Your task to perform on an android device: What is the news today? Image 0: 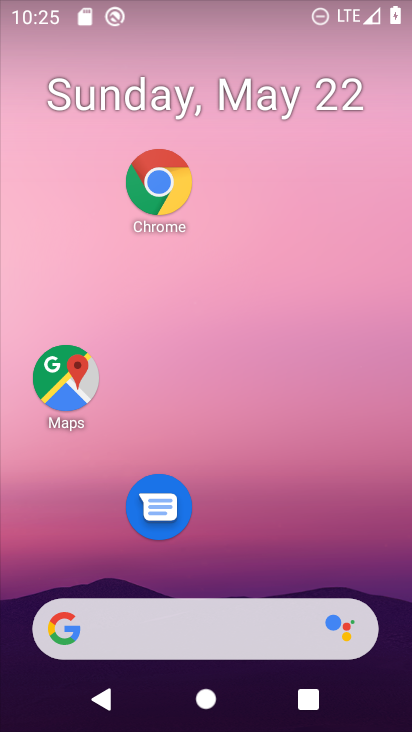
Step 0: click (214, 612)
Your task to perform on an android device: What is the news today? Image 1: 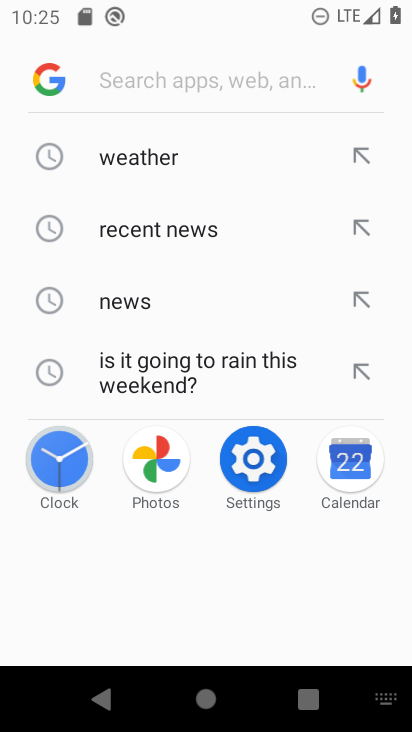
Step 1: type "What is the news today?"
Your task to perform on an android device: What is the news today? Image 2: 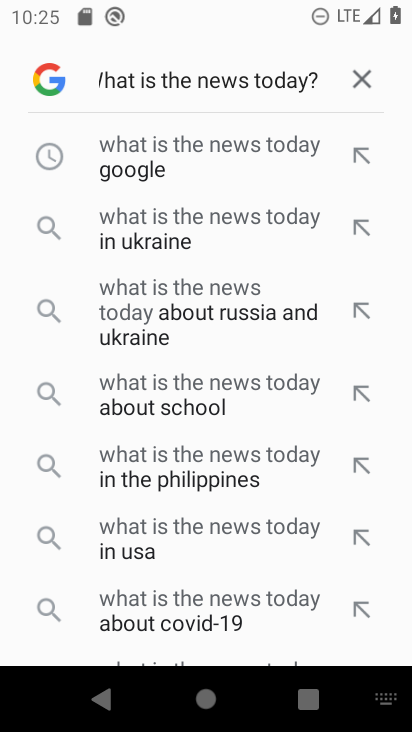
Step 2: click (174, 157)
Your task to perform on an android device: What is the news today? Image 3: 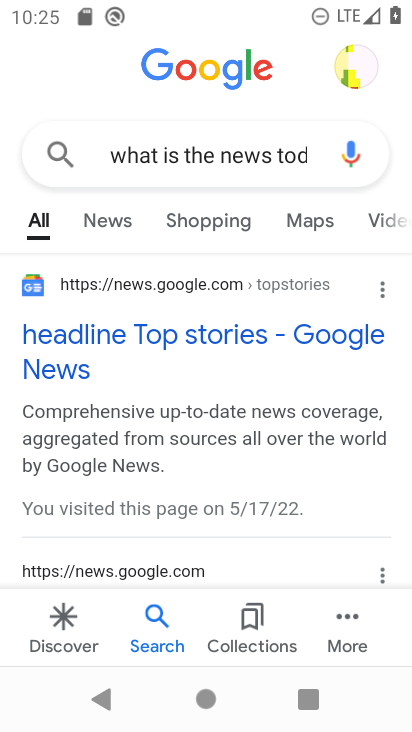
Step 3: task complete